Your task to perform on an android device: open sync settings in chrome Image 0: 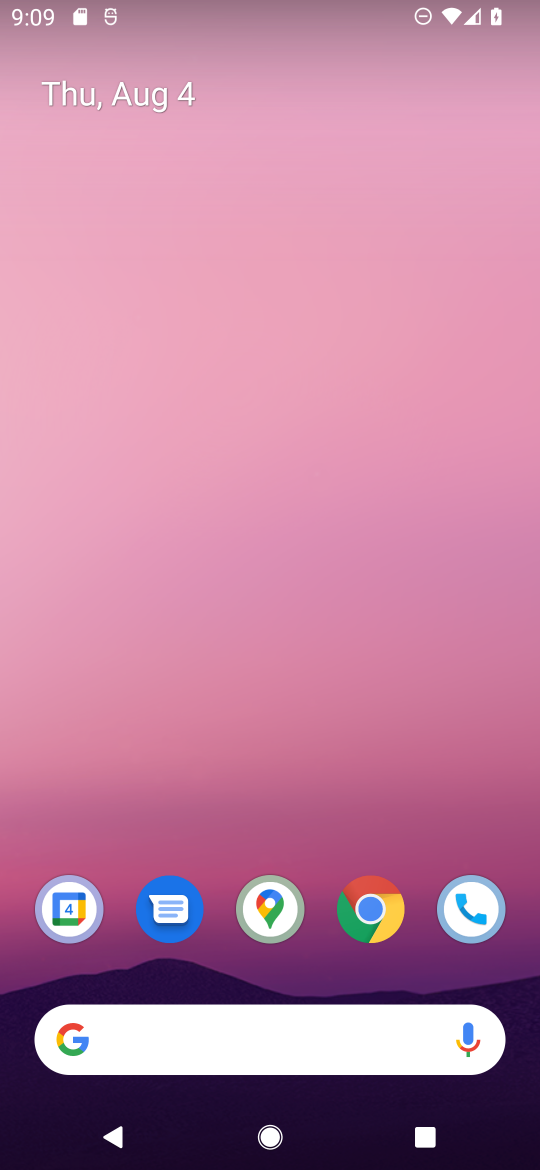
Step 0: drag from (310, 828) to (322, 198)
Your task to perform on an android device: open sync settings in chrome Image 1: 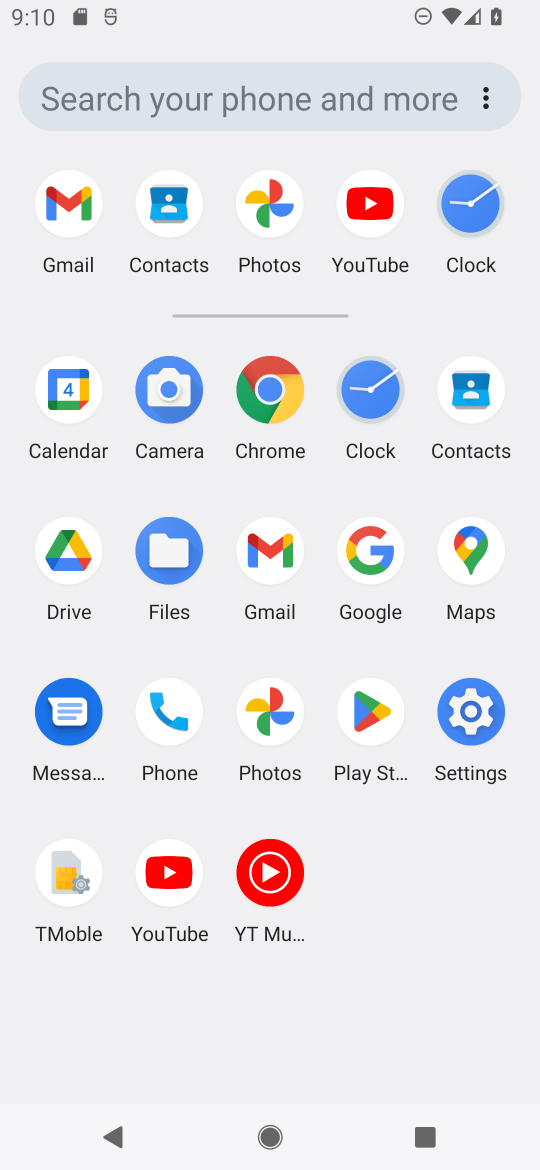
Step 1: click (274, 403)
Your task to perform on an android device: open sync settings in chrome Image 2: 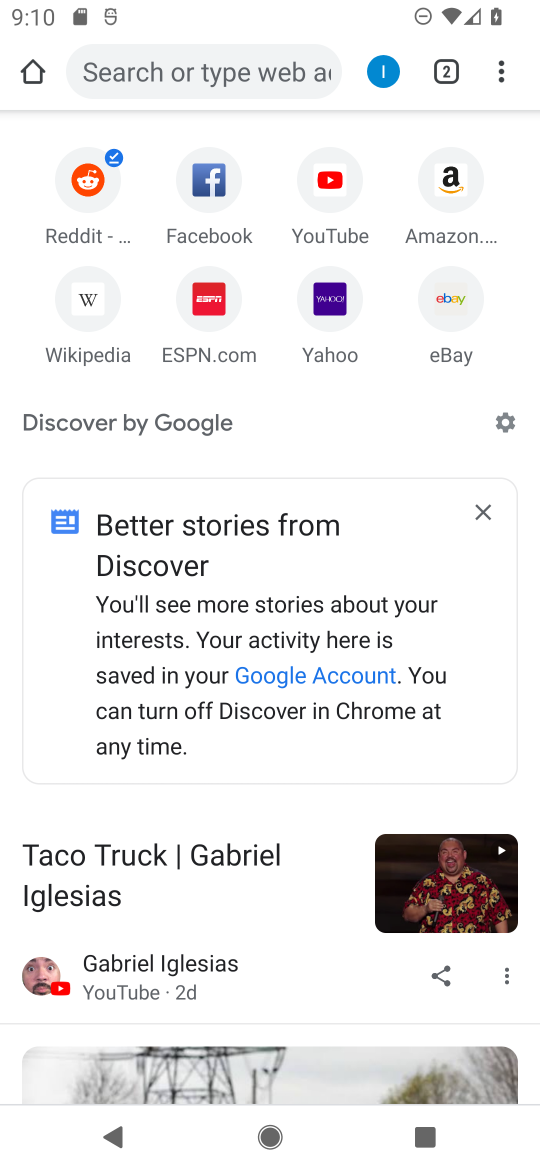
Step 2: click (499, 76)
Your task to perform on an android device: open sync settings in chrome Image 3: 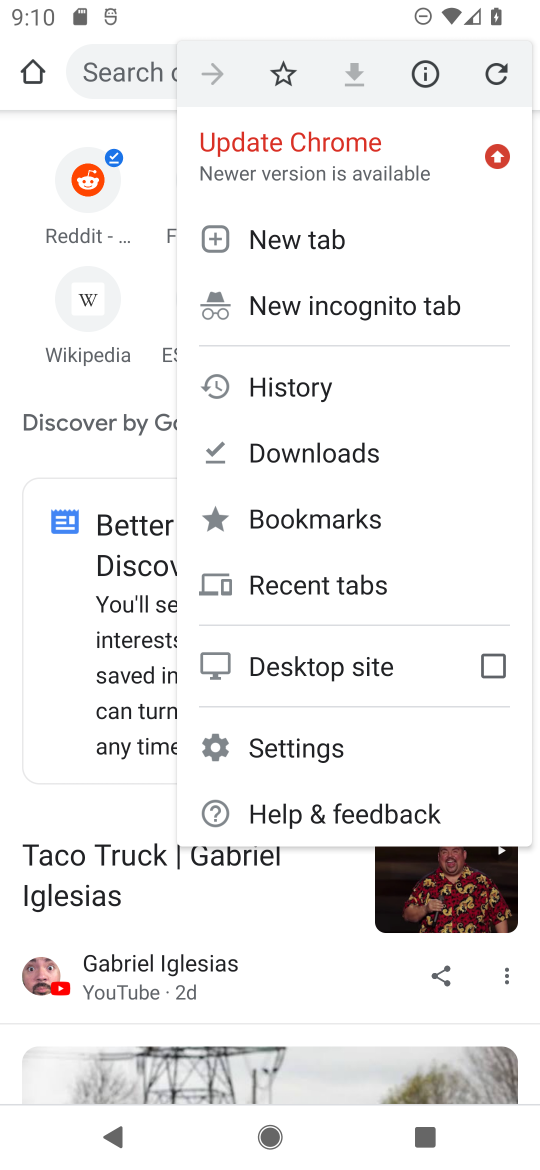
Step 3: click (330, 751)
Your task to perform on an android device: open sync settings in chrome Image 4: 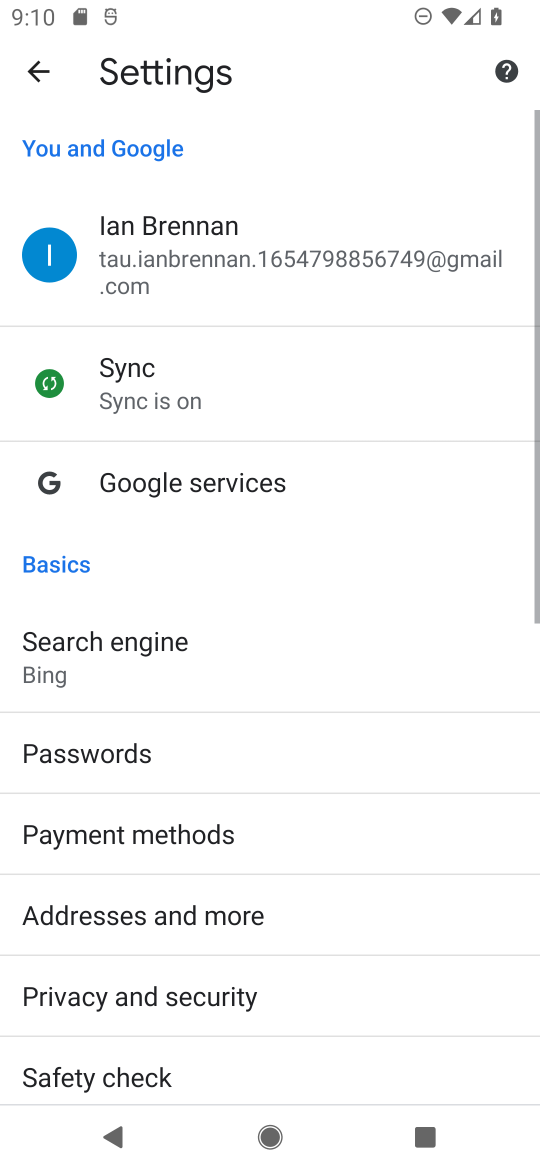
Step 4: drag from (384, 933) to (391, 713)
Your task to perform on an android device: open sync settings in chrome Image 5: 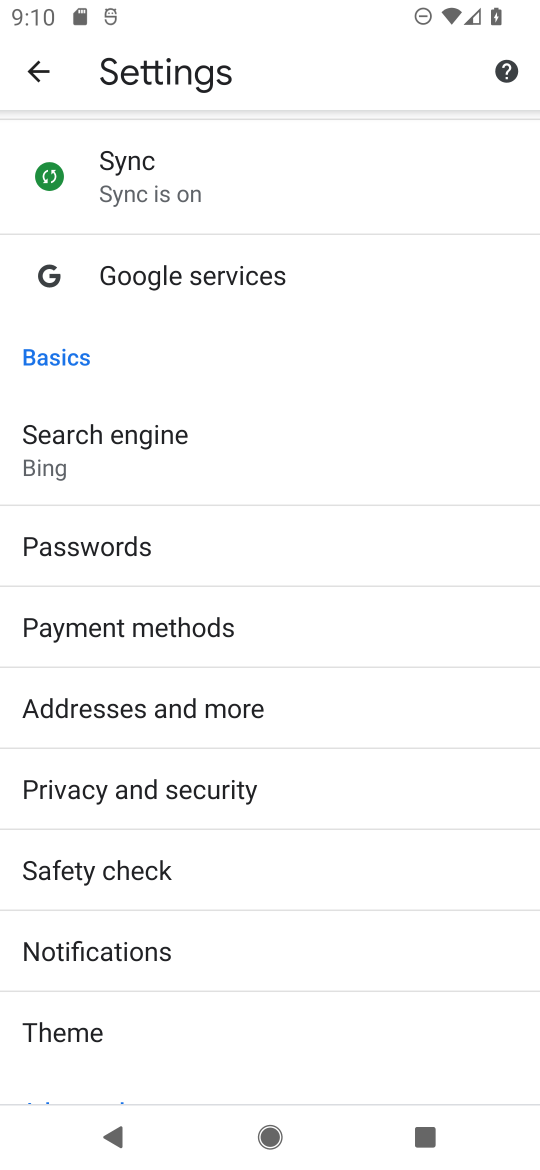
Step 5: drag from (388, 933) to (430, 649)
Your task to perform on an android device: open sync settings in chrome Image 6: 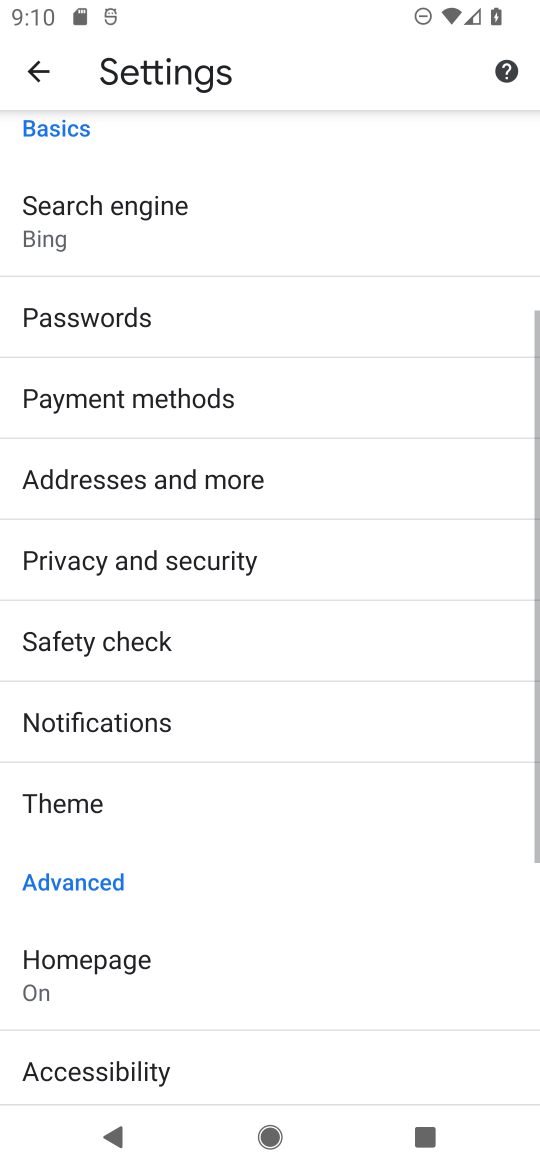
Step 6: drag from (415, 961) to (422, 687)
Your task to perform on an android device: open sync settings in chrome Image 7: 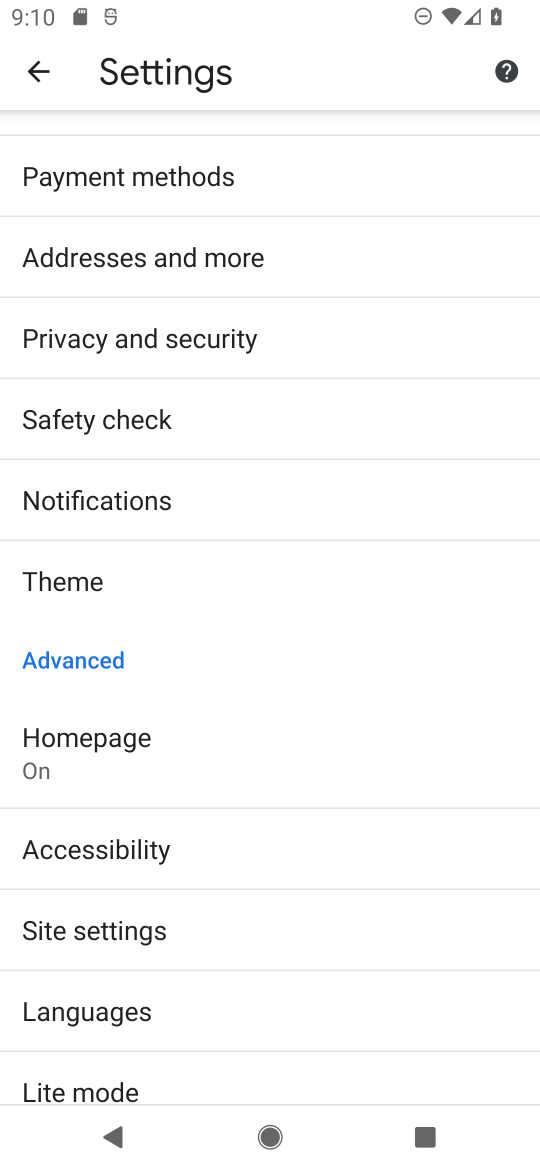
Step 7: drag from (408, 978) to (423, 756)
Your task to perform on an android device: open sync settings in chrome Image 8: 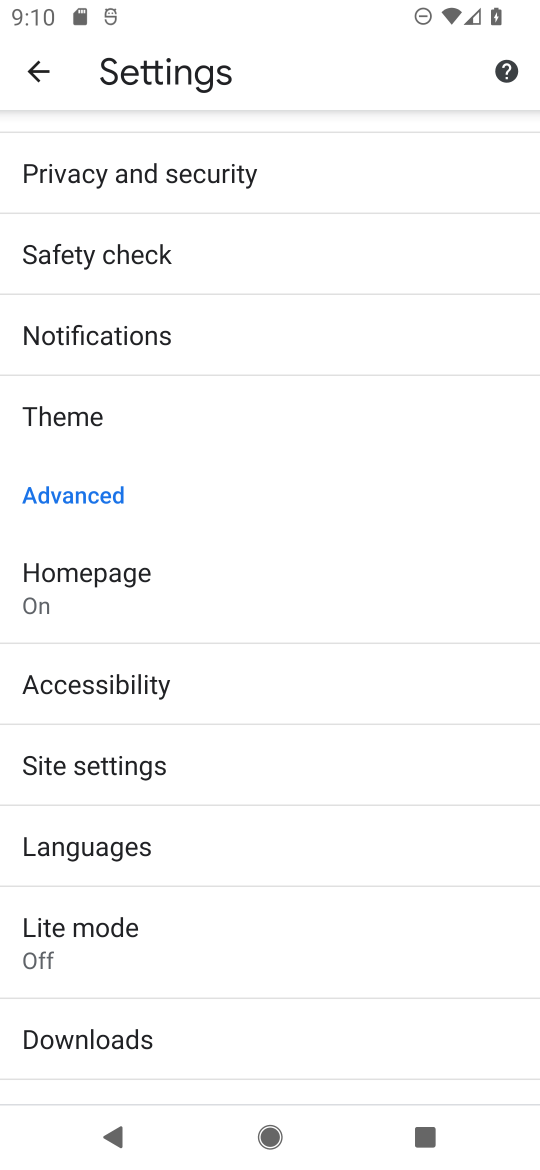
Step 8: drag from (373, 970) to (391, 687)
Your task to perform on an android device: open sync settings in chrome Image 9: 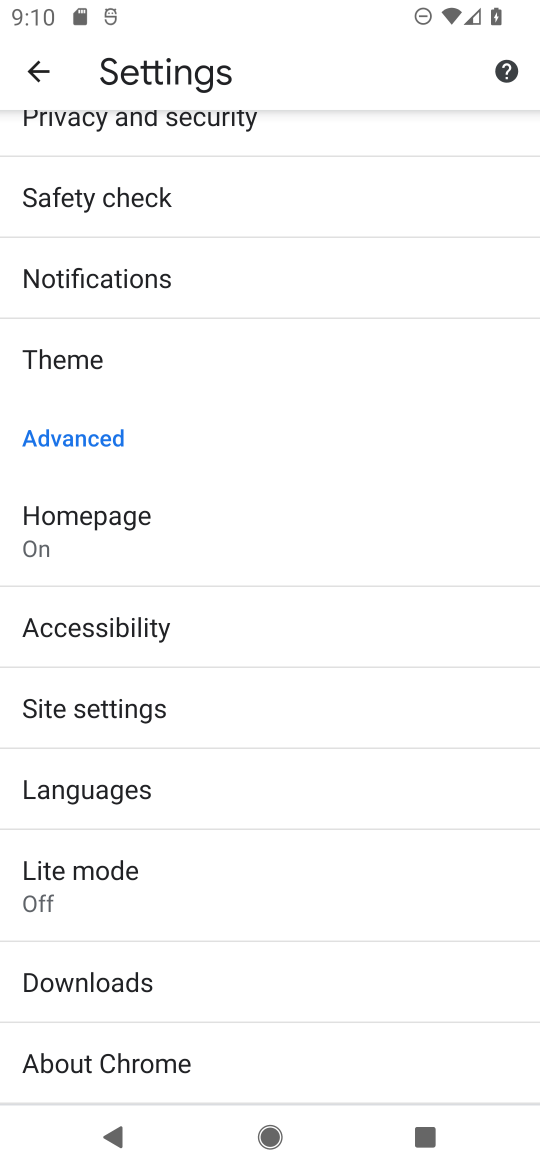
Step 9: click (309, 711)
Your task to perform on an android device: open sync settings in chrome Image 10: 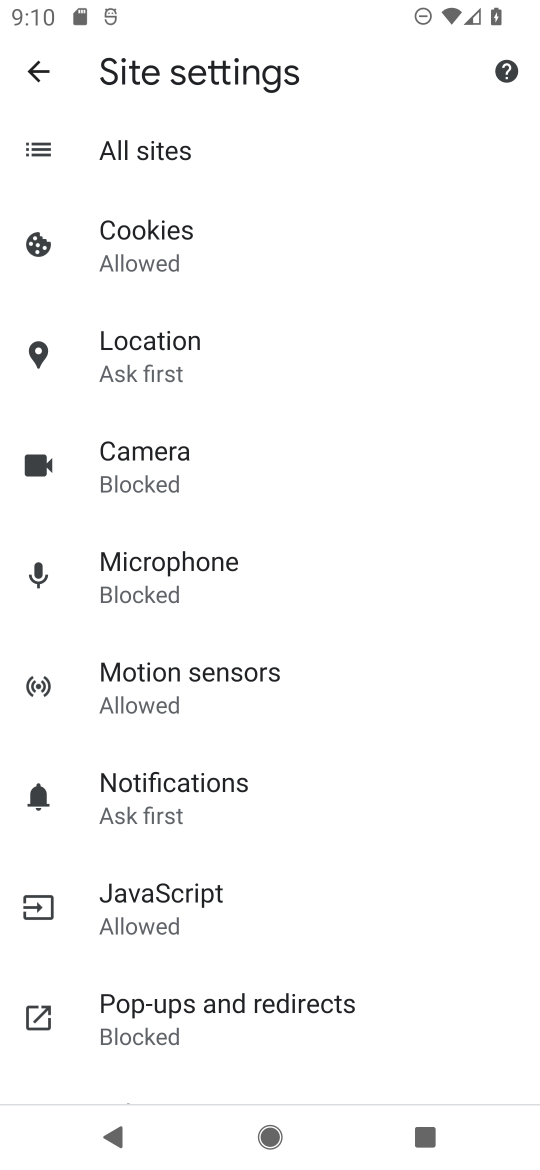
Step 10: drag from (387, 897) to (417, 620)
Your task to perform on an android device: open sync settings in chrome Image 11: 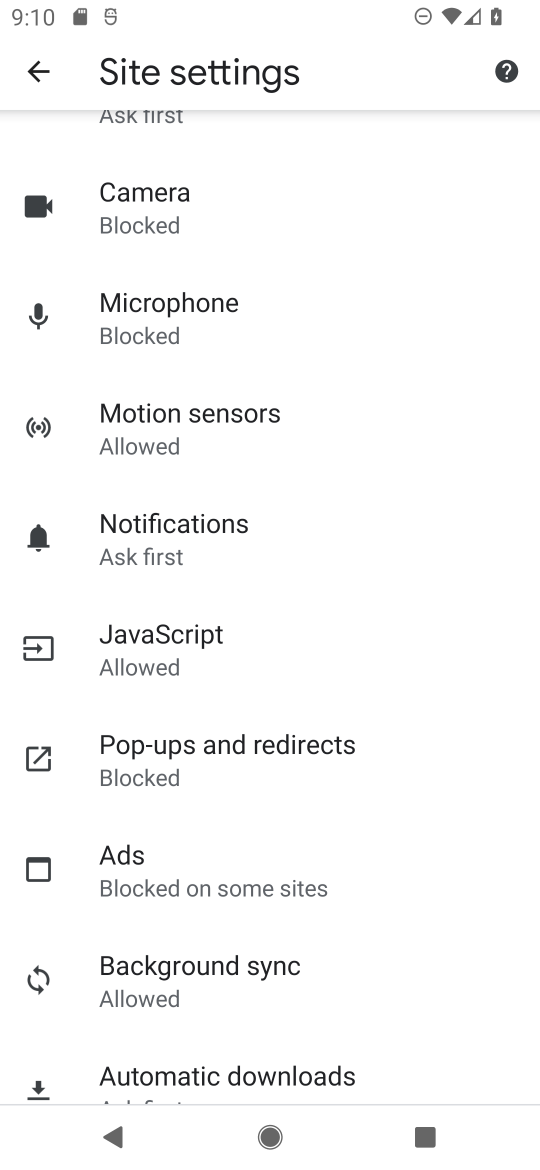
Step 11: drag from (428, 929) to (460, 638)
Your task to perform on an android device: open sync settings in chrome Image 12: 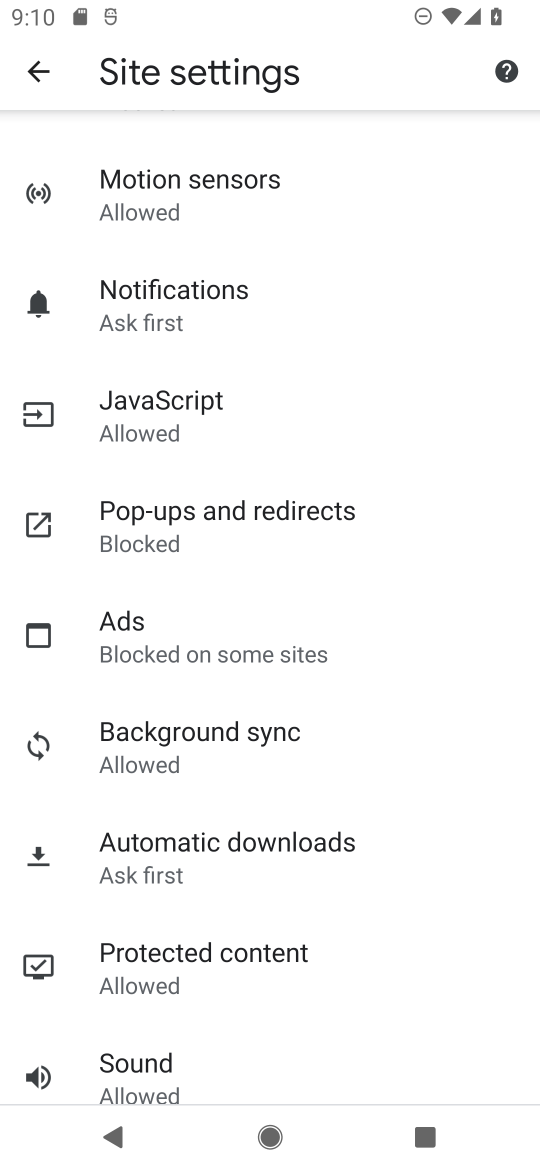
Step 12: drag from (446, 907) to (439, 604)
Your task to perform on an android device: open sync settings in chrome Image 13: 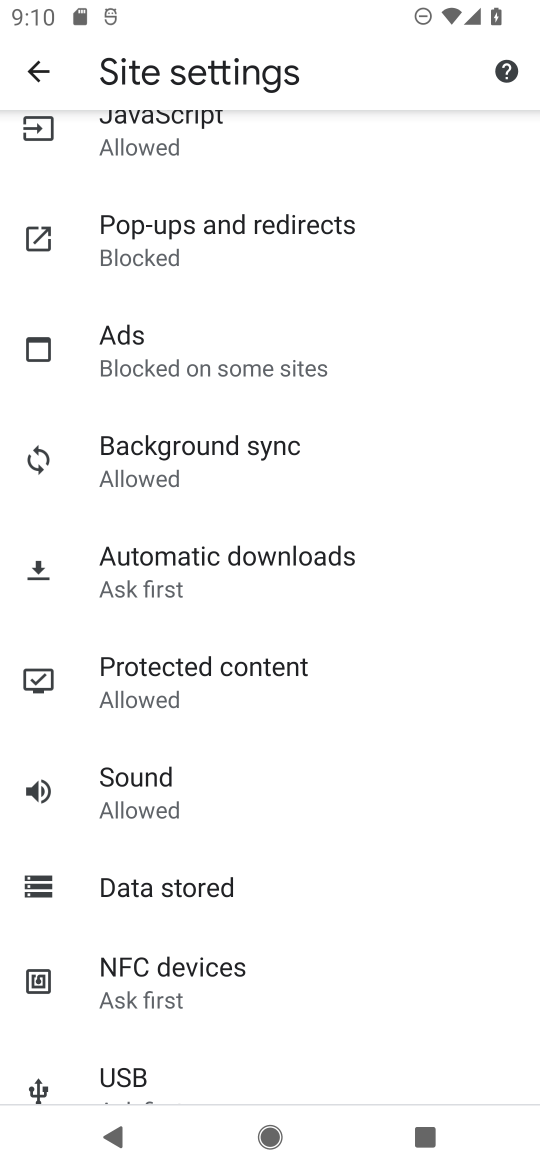
Step 13: drag from (418, 889) to (429, 670)
Your task to perform on an android device: open sync settings in chrome Image 14: 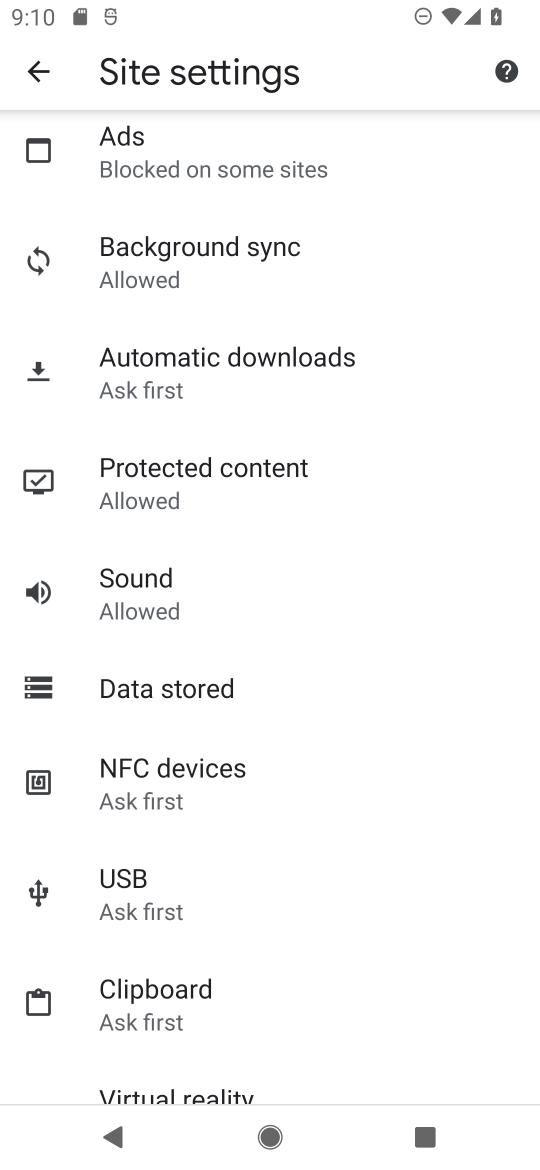
Step 14: drag from (397, 923) to (403, 668)
Your task to perform on an android device: open sync settings in chrome Image 15: 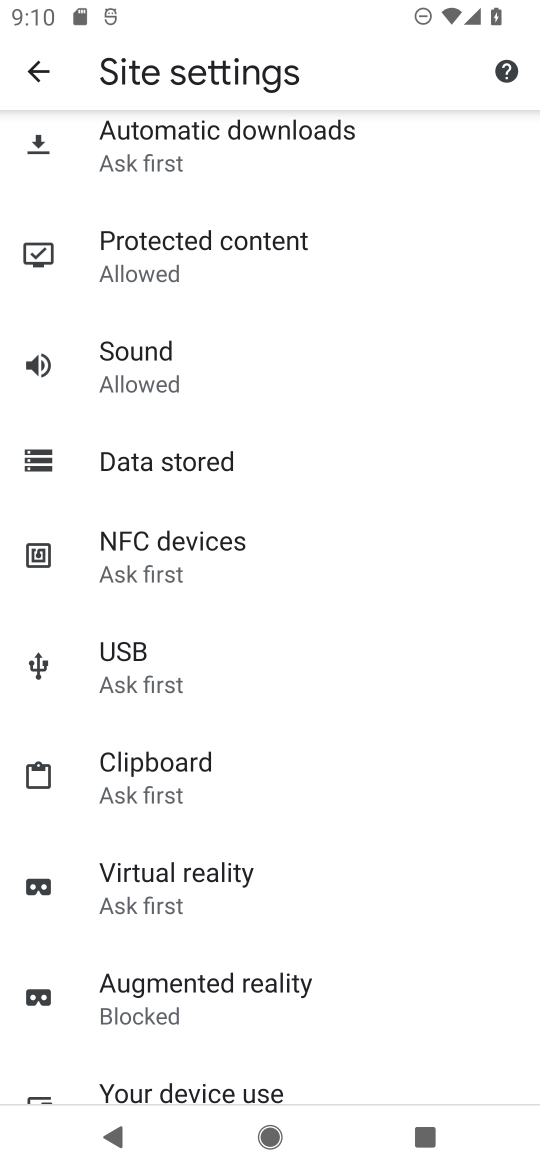
Step 15: drag from (403, 1007) to (423, 676)
Your task to perform on an android device: open sync settings in chrome Image 16: 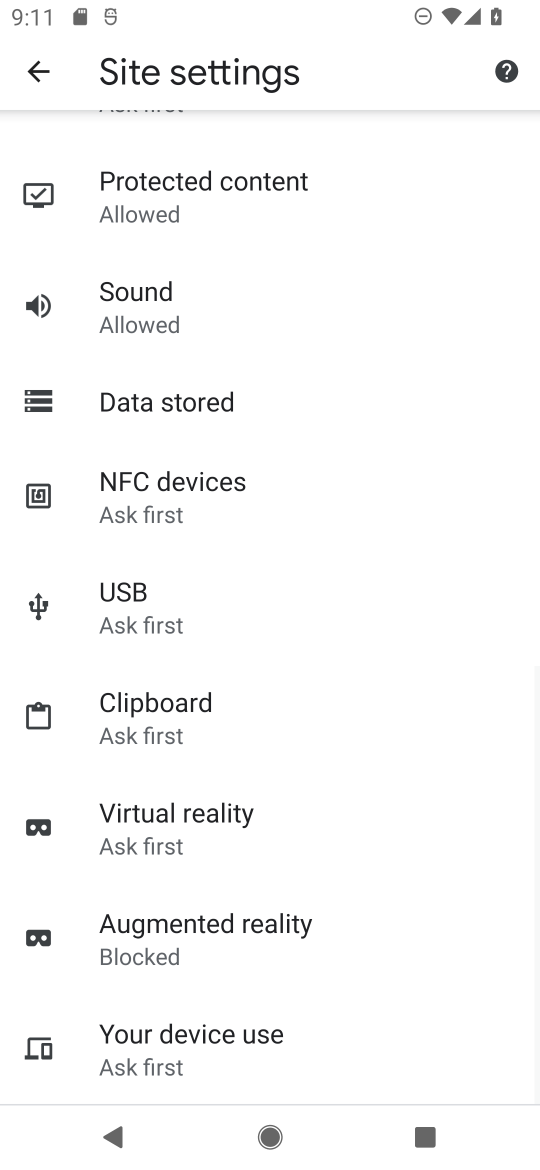
Step 16: drag from (439, 437) to (417, 693)
Your task to perform on an android device: open sync settings in chrome Image 17: 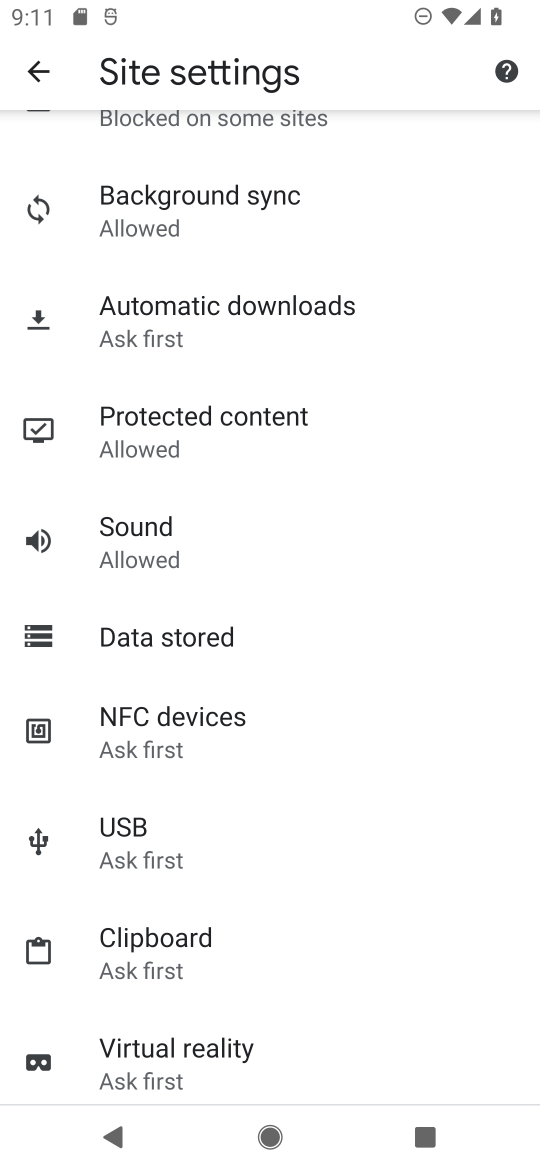
Step 17: drag from (427, 378) to (412, 706)
Your task to perform on an android device: open sync settings in chrome Image 18: 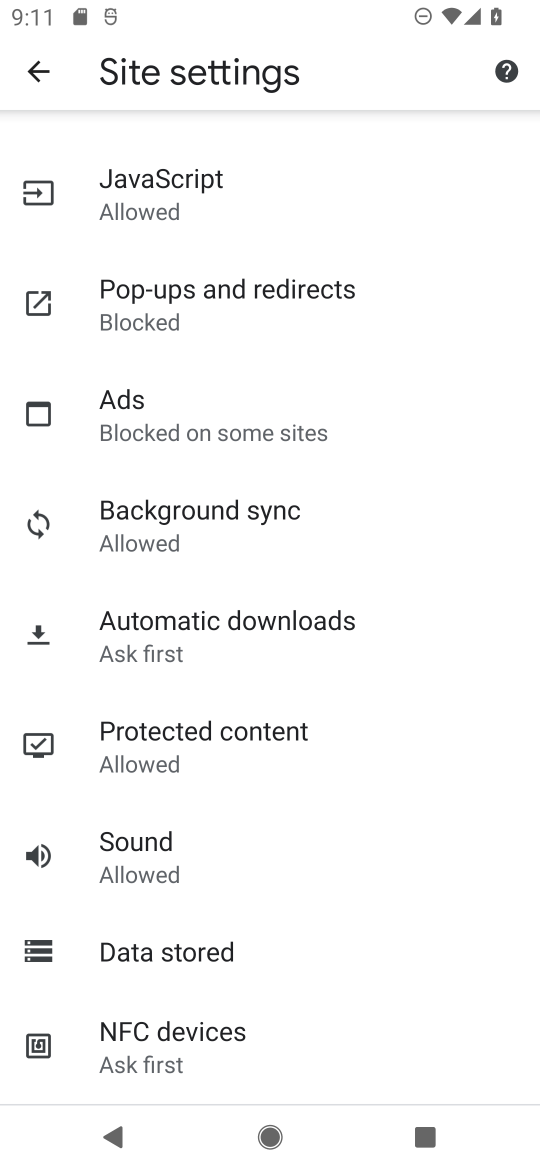
Step 18: drag from (429, 340) to (410, 689)
Your task to perform on an android device: open sync settings in chrome Image 19: 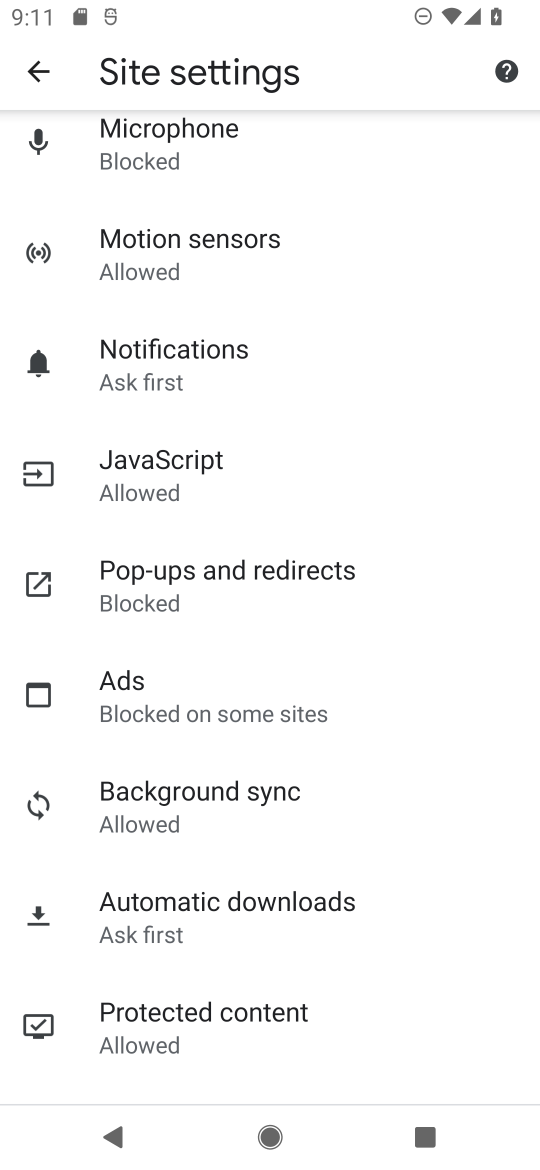
Step 19: click (256, 802)
Your task to perform on an android device: open sync settings in chrome Image 20: 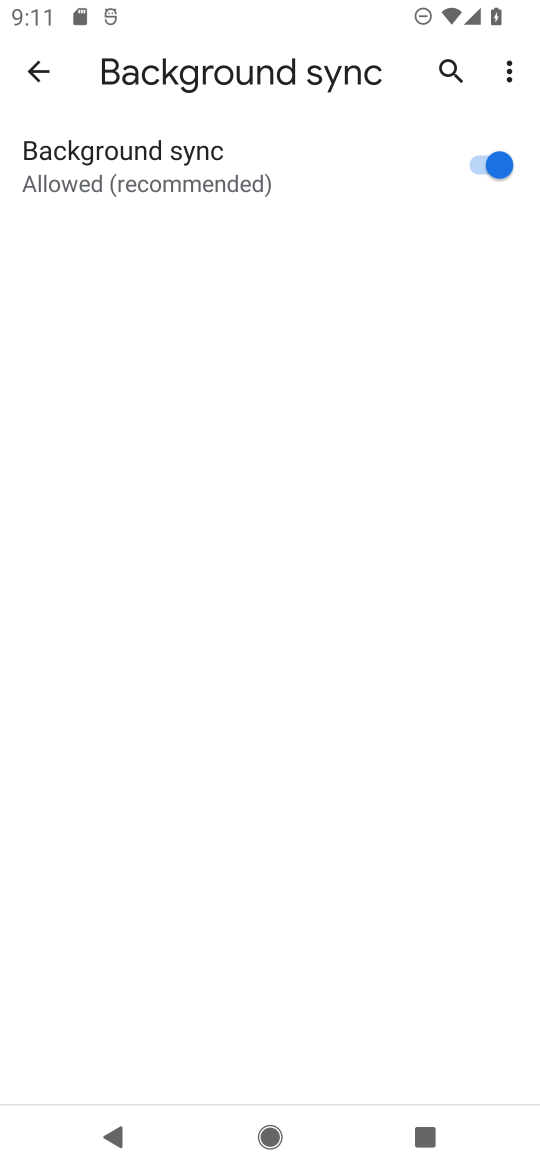
Step 20: task complete